Your task to perform on an android device: add a contact Image 0: 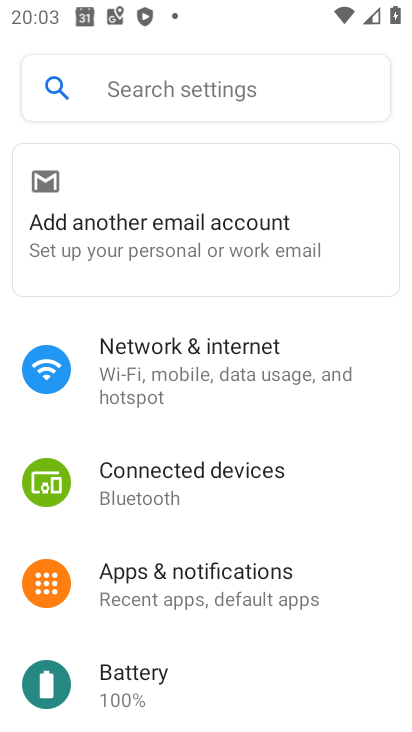
Step 0: press home button
Your task to perform on an android device: add a contact Image 1: 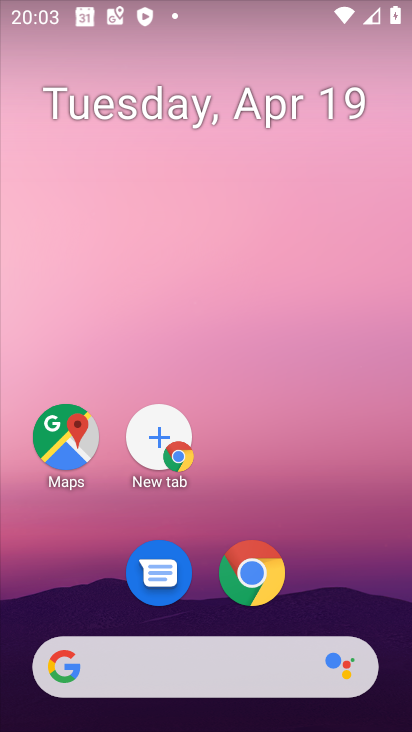
Step 1: drag from (300, 243) to (294, 119)
Your task to perform on an android device: add a contact Image 2: 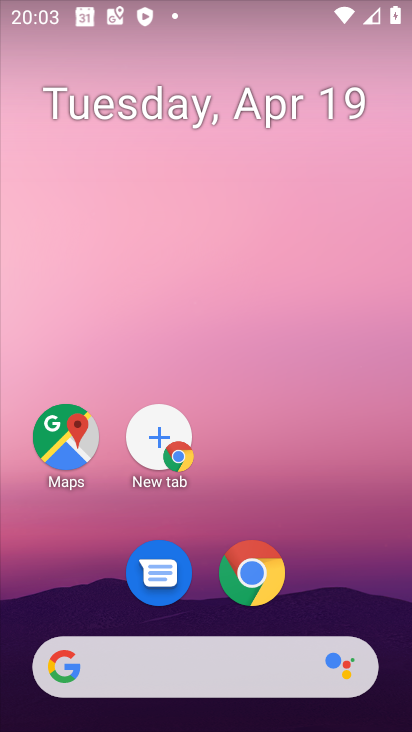
Step 2: drag from (371, 575) to (295, 18)
Your task to perform on an android device: add a contact Image 3: 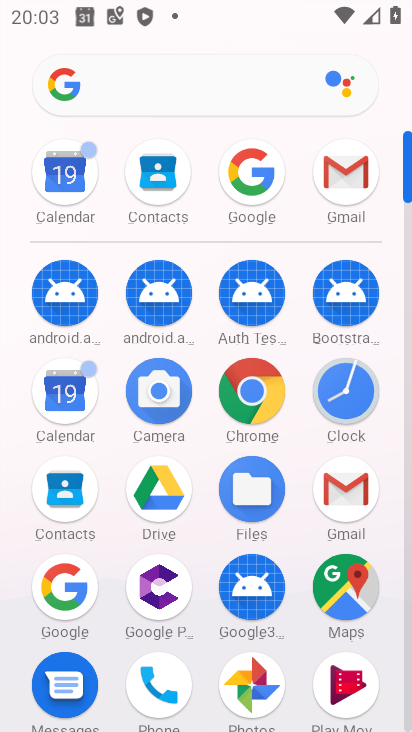
Step 3: click (61, 493)
Your task to perform on an android device: add a contact Image 4: 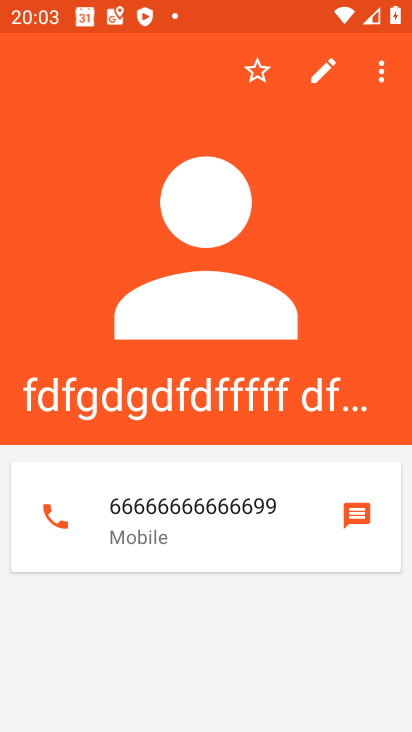
Step 4: press back button
Your task to perform on an android device: add a contact Image 5: 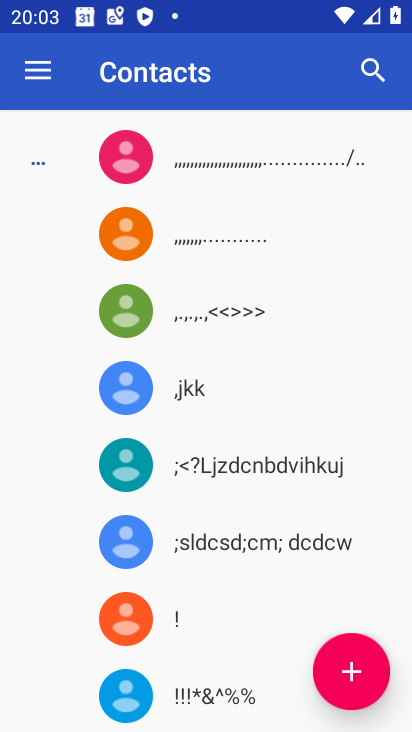
Step 5: click (339, 689)
Your task to perform on an android device: add a contact Image 6: 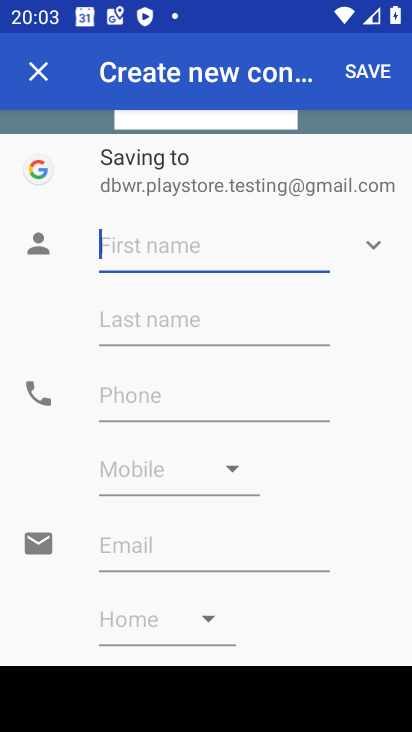
Step 6: type "fghhgdd"
Your task to perform on an android device: add a contact Image 7: 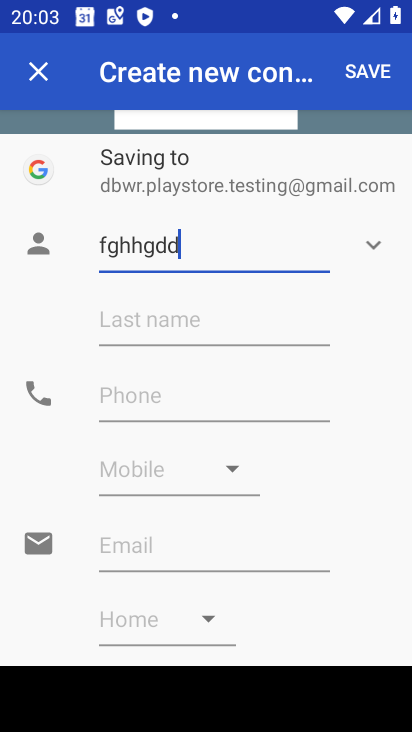
Step 7: click (106, 319)
Your task to perform on an android device: add a contact Image 8: 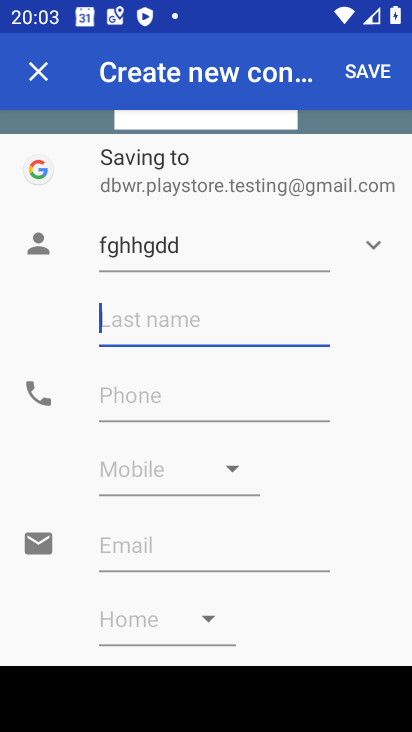
Step 8: type "yhhnbgfd"
Your task to perform on an android device: add a contact Image 9: 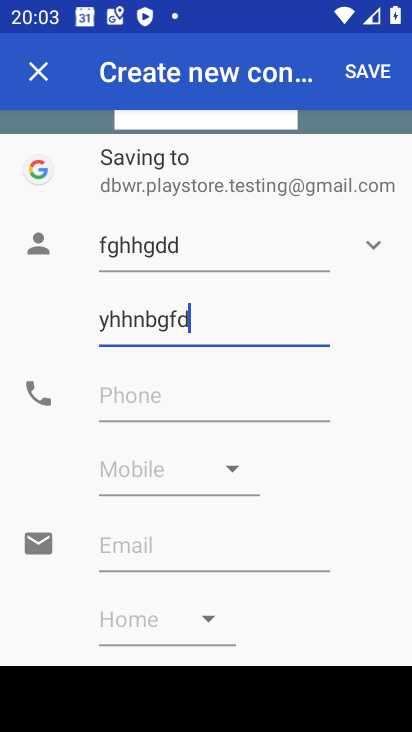
Step 9: click (203, 389)
Your task to perform on an android device: add a contact Image 10: 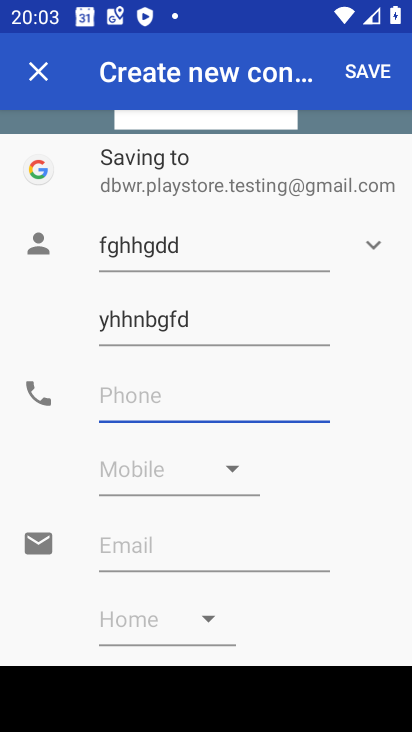
Step 10: type "2345678887434"
Your task to perform on an android device: add a contact Image 11: 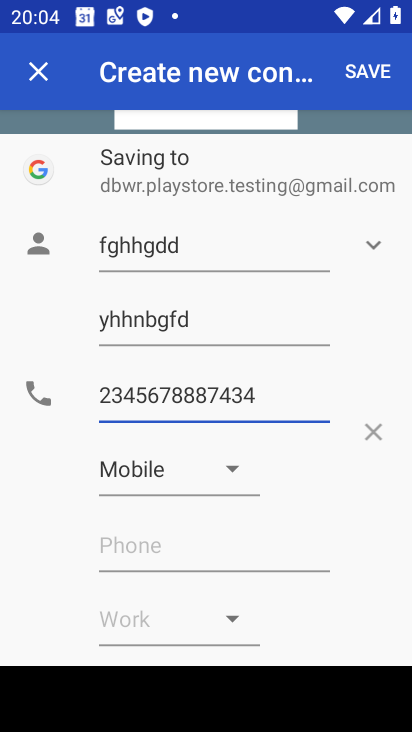
Step 11: click (374, 61)
Your task to perform on an android device: add a contact Image 12: 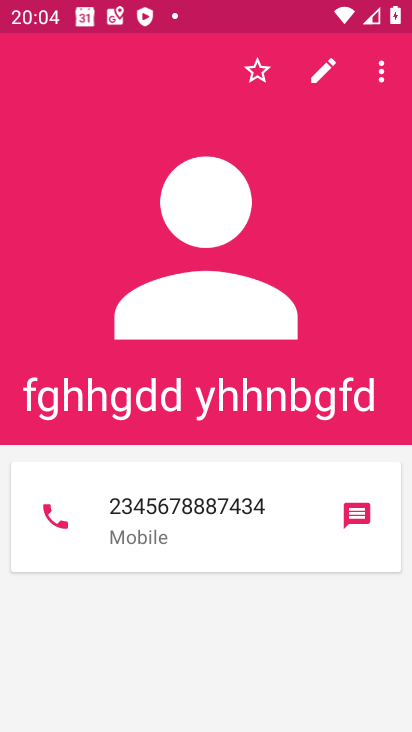
Step 12: task complete